Your task to perform on an android device: Open Chrome and go to the settings page Image 0: 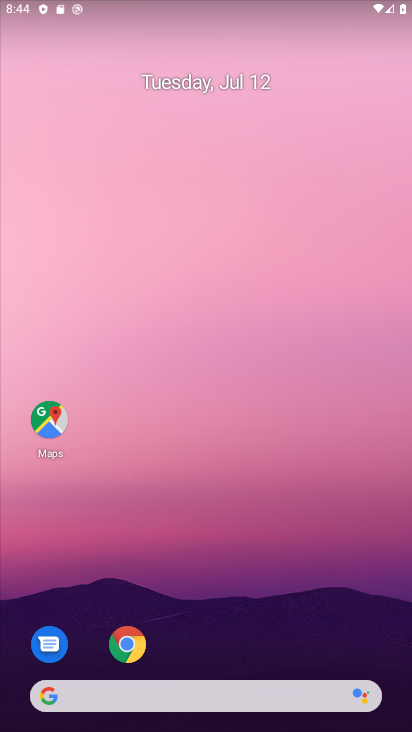
Step 0: click (130, 644)
Your task to perform on an android device: Open Chrome and go to the settings page Image 1: 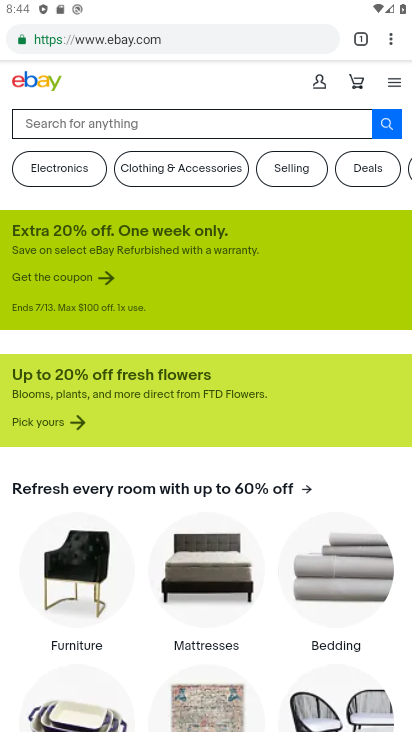
Step 1: task complete